Your task to perform on an android device: toggle notifications settings in the gmail app Image 0: 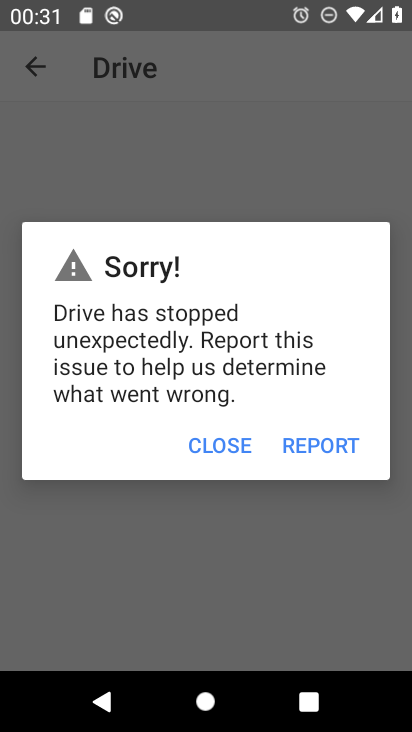
Step 0: press home button
Your task to perform on an android device: toggle notifications settings in the gmail app Image 1: 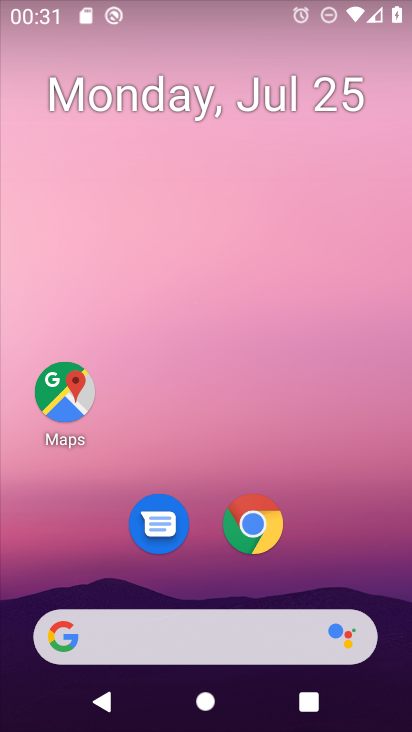
Step 1: drag from (175, 632) to (287, 103)
Your task to perform on an android device: toggle notifications settings in the gmail app Image 2: 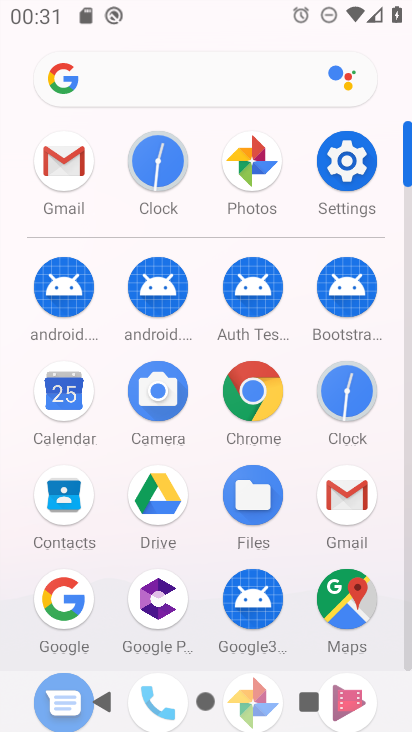
Step 2: click (351, 167)
Your task to perform on an android device: toggle notifications settings in the gmail app Image 3: 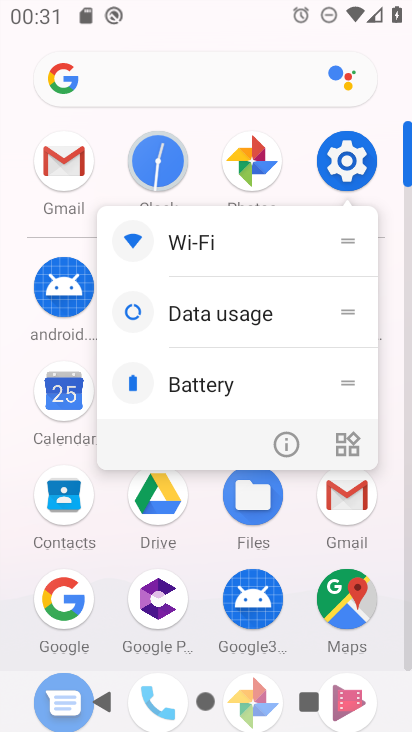
Step 3: click (67, 172)
Your task to perform on an android device: toggle notifications settings in the gmail app Image 4: 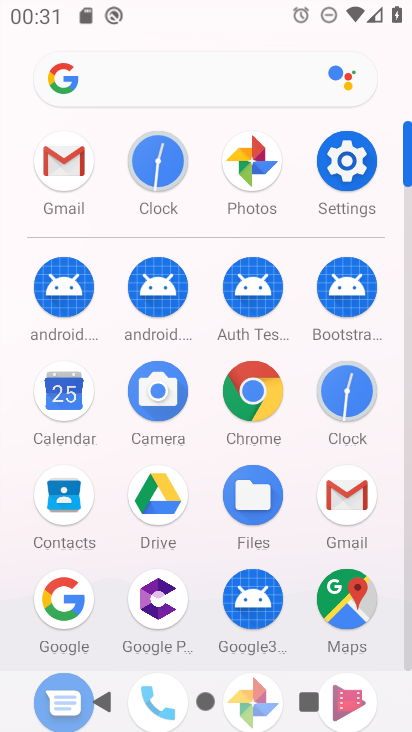
Step 4: click (66, 166)
Your task to perform on an android device: toggle notifications settings in the gmail app Image 5: 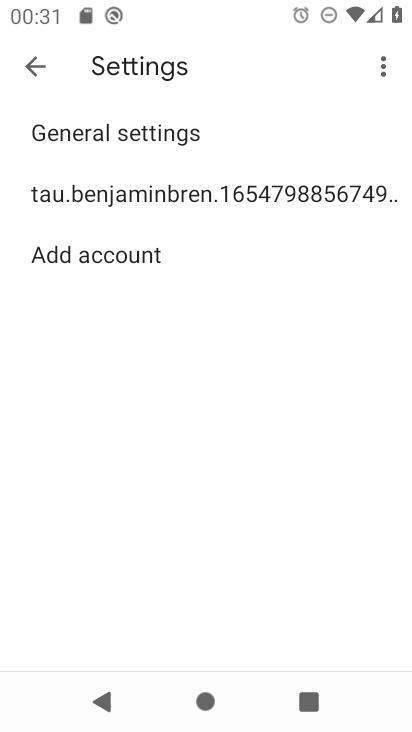
Step 5: click (138, 186)
Your task to perform on an android device: toggle notifications settings in the gmail app Image 6: 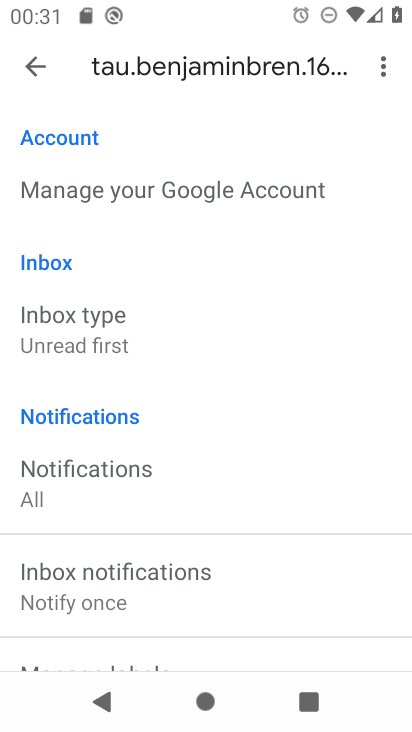
Step 6: click (84, 488)
Your task to perform on an android device: toggle notifications settings in the gmail app Image 7: 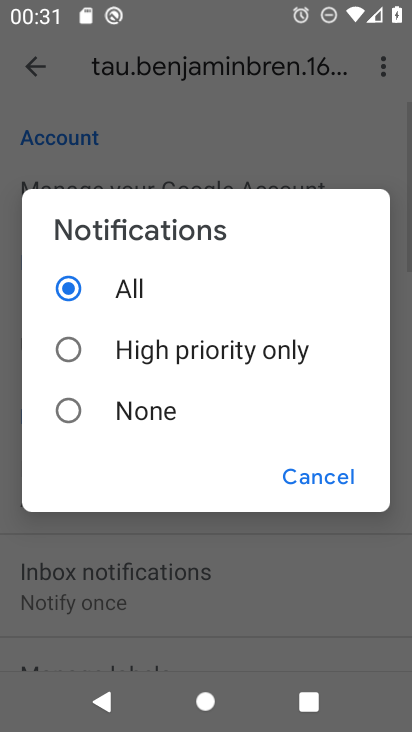
Step 7: click (60, 408)
Your task to perform on an android device: toggle notifications settings in the gmail app Image 8: 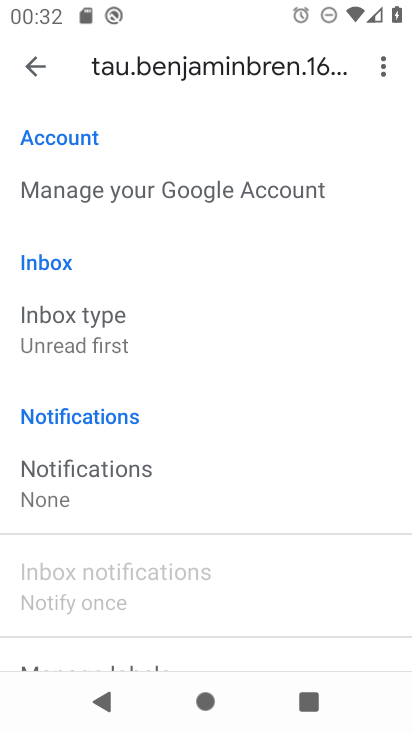
Step 8: task complete